Your task to perform on an android device: Check the settings for the Lyft app Image 0: 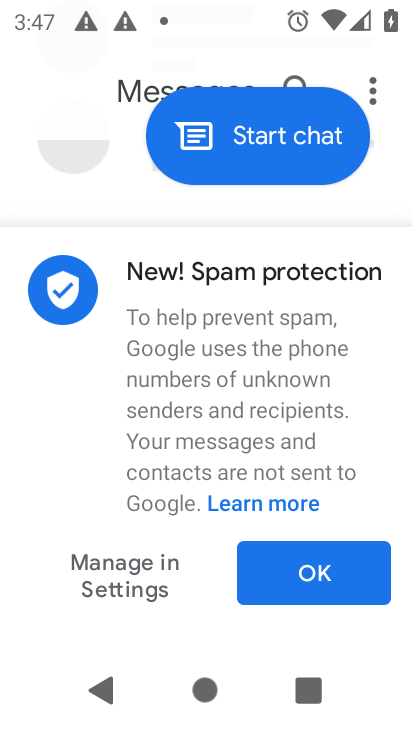
Step 0: press home button
Your task to perform on an android device: Check the settings for the Lyft app Image 1: 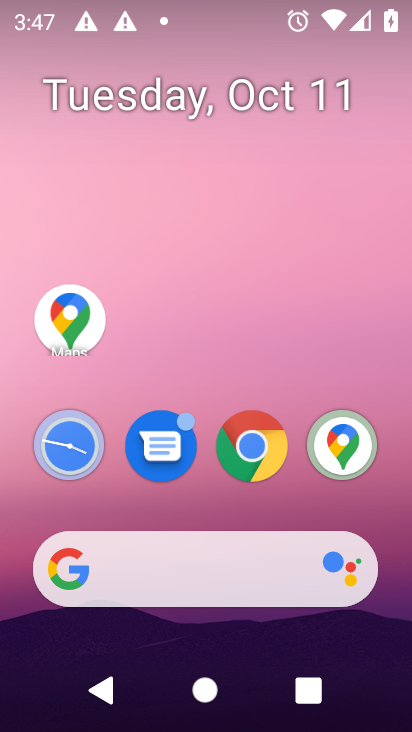
Step 1: task complete